Your task to perform on an android device: Open settings on Google Maps Image 0: 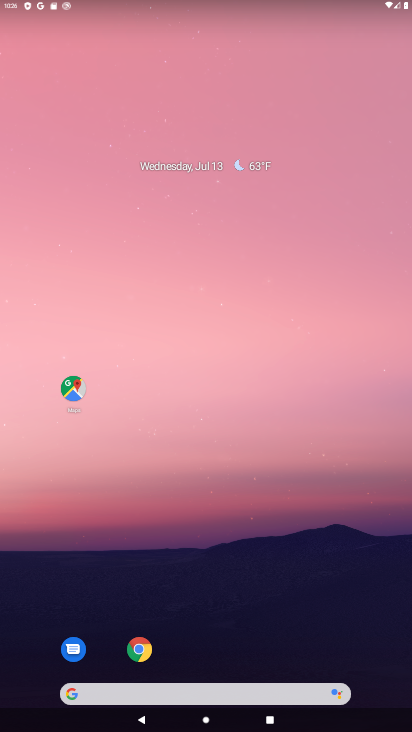
Step 0: drag from (255, 633) to (297, 156)
Your task to perform on an android device: Open settings on Google Maps Image 1: 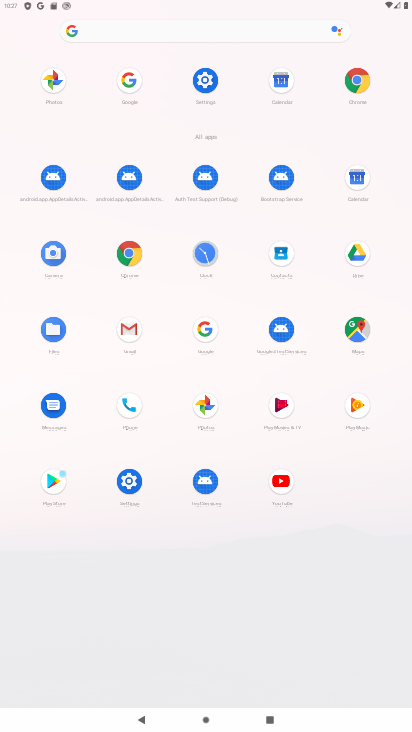
Step 1: click (358, 329)
Your task to perform on an android device: Open settings on Google Maps Image 2: 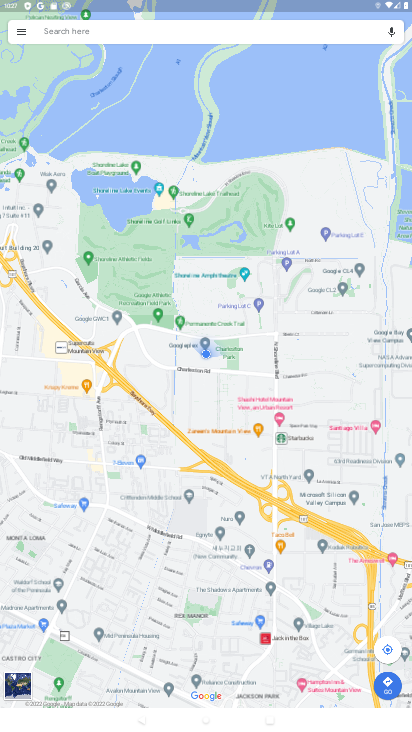
Step 2: task complete